Your task to perform on an android device: Open privacy settings Image 0: 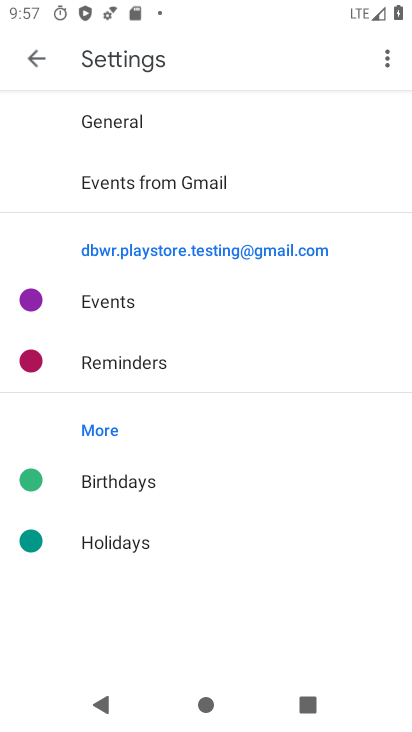
Step 0: press home button
Your task to perform on an android device: Open privacy settings Image 1: 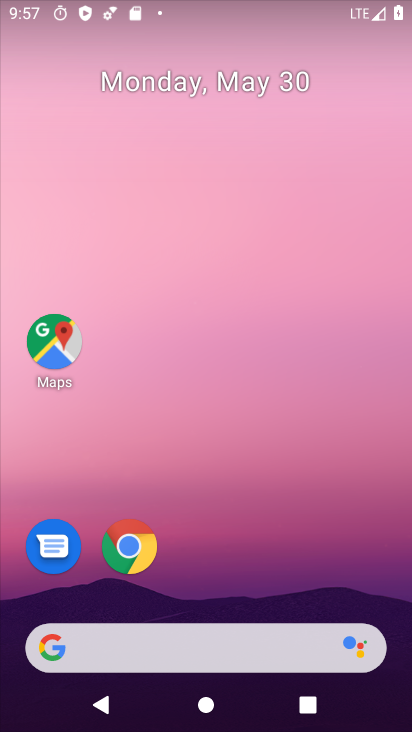
Step 1: click (142, 551)
Your task to perform on an android device: Open privacy settings Image 2: 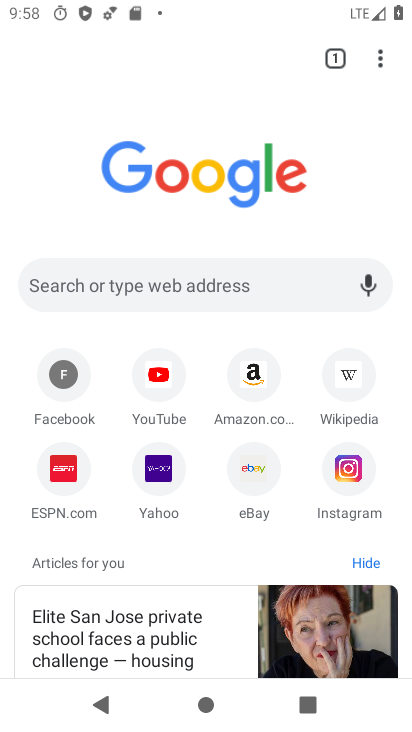
Step 2: drag from (391, 59) to (233, 500)
Your task to perform on an android device: Open privacy settings Image 3: 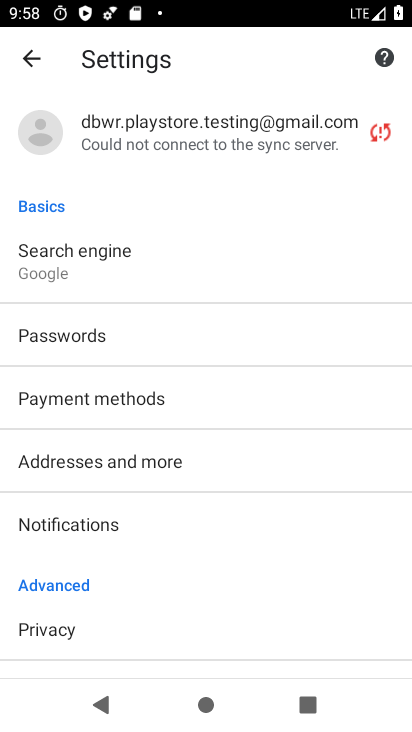
Step 3: click (135, 641)
Your task to perform on an android device: Open privacy settings Image 4: 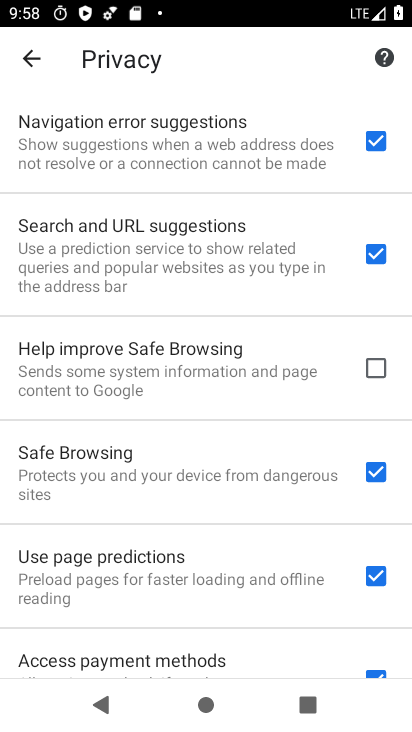
Step 4: task complete